Your task to perform on an android device: What's the weather? Image 0: 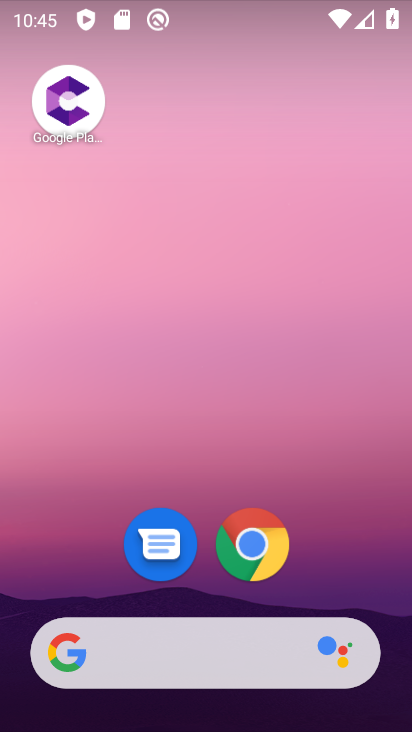
Step 0: drag from (18, 291) to (390, 359)
Your task to perform on an android device: What's the weather? Image 1: 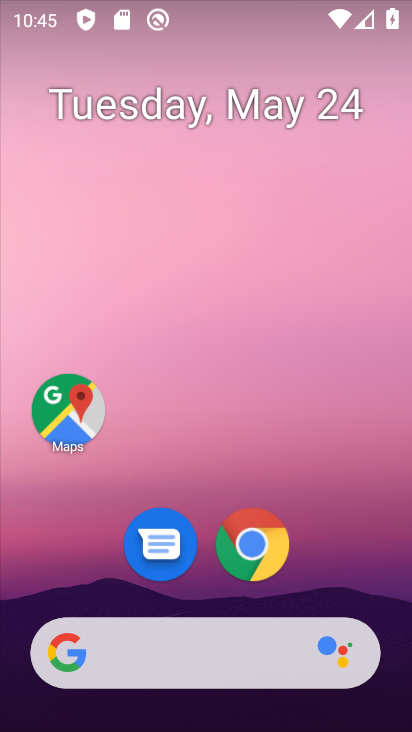
Step 1: drag from (41, 244) to (368, 189)
Your task to perform on an android device: What's the weather? Image 2: 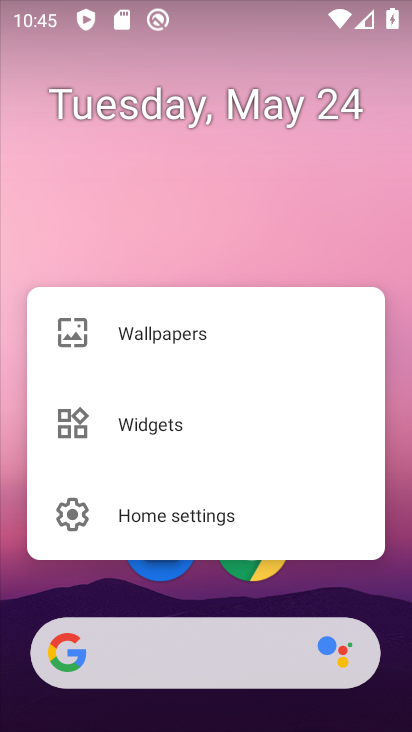
Step 2: click (39, 242)
Your task to perform on an android device: What's the weather? Image 3: 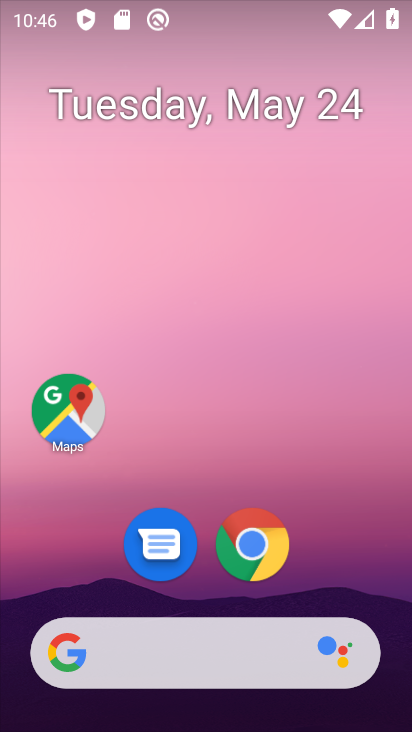
Step 3: drag from (134, 298) to (333, 337)
Your task to perform on an android device: What's the weather? Image 4: 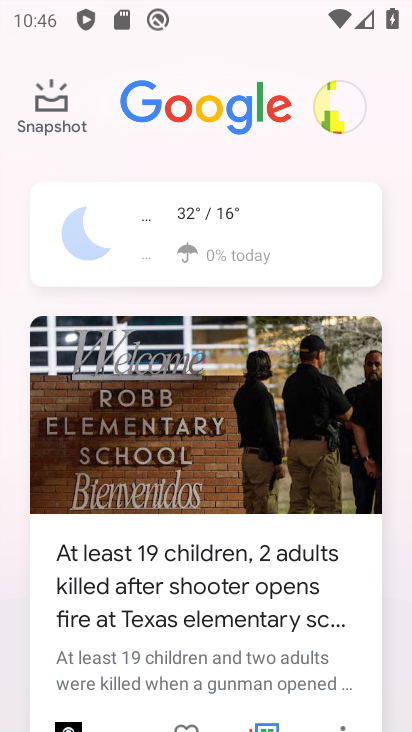
Step 4: click (85, 238)
Your task to perform on an android device: What's the weather? Image 5: 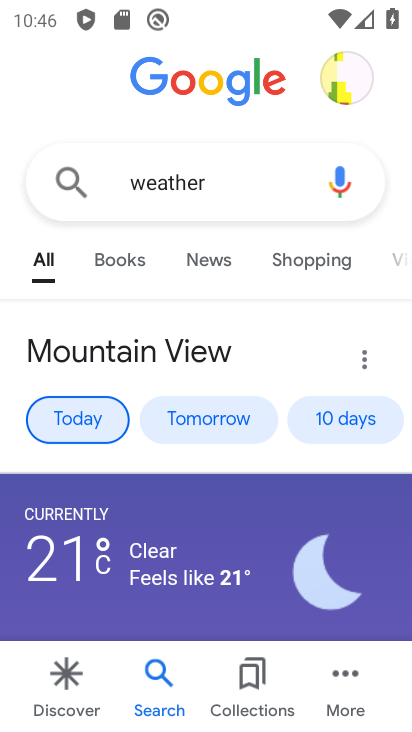
Step 5: task complete